Your task to perform on an android device: Play the last video I watched on Youtube Image 0: 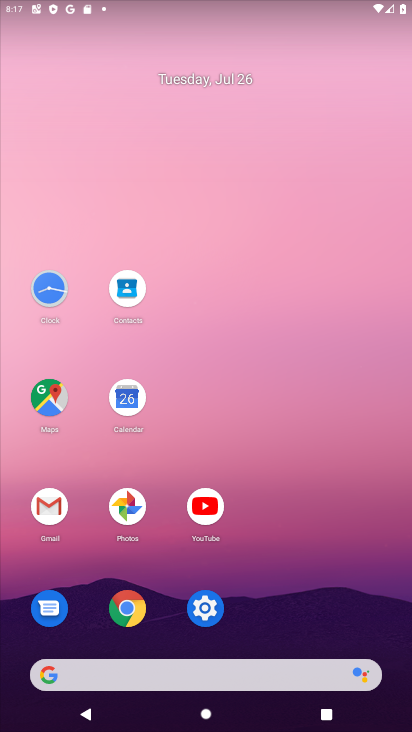
Step 0: click (206, 506)
Your task to perform on an android device: Play the last video I watched on Youtube Image 1: 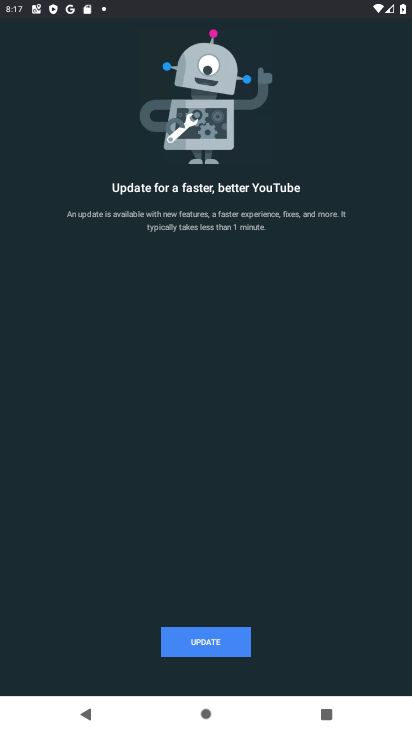
Step 1: click (198, 644)
Your task to perform on an android device: Play the last video I watched on Youtube Image 2: 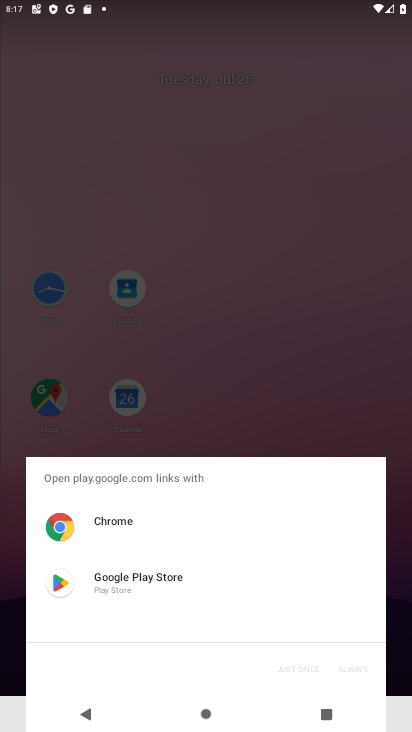
Step 2: click (112, 578)
Your task to perform on an android device: Play the last video I watched on Youtube Image 3: 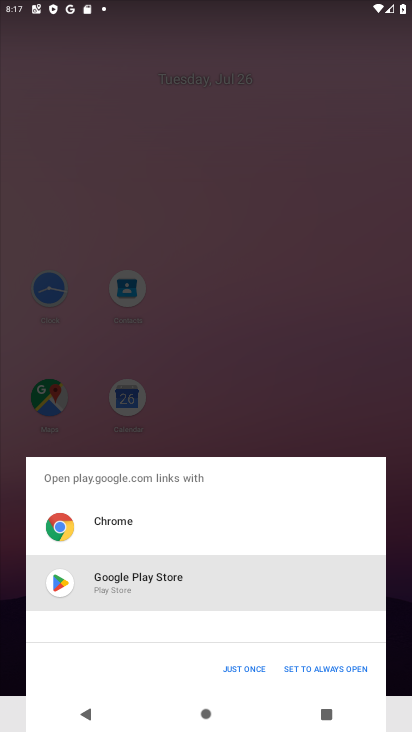
Step 3: click (245, 669)
Your task to perform on an android device: Play the last video I watched on Youtube Image 4: 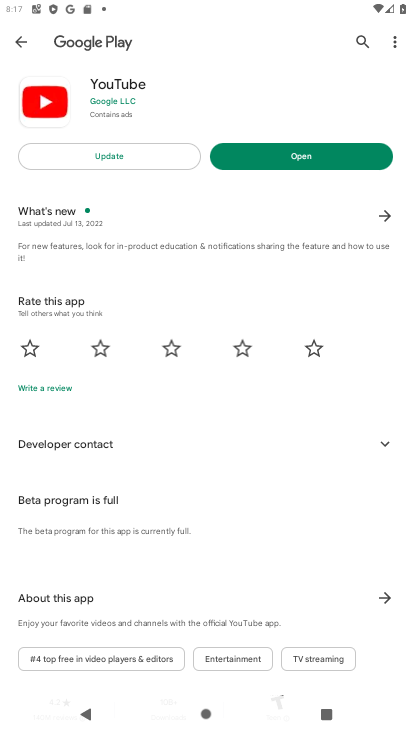
Step 4: click (111, 154)
Your task to perform on an android device: Play the last video I watched on Youtube Image 5: 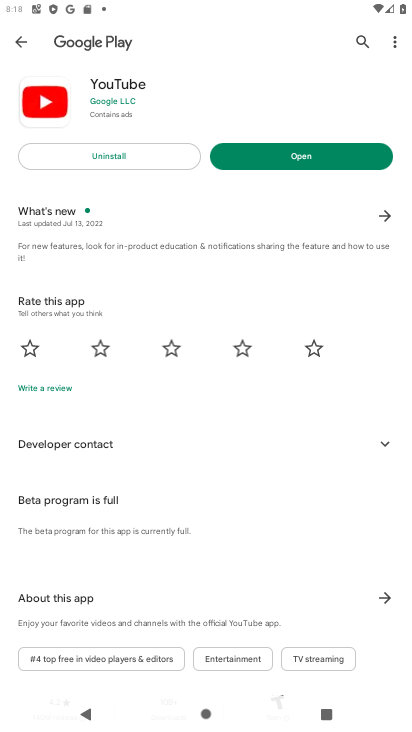
Step 5: click (291, 155)
Your task to perform on an android device: Play the last video I watched on Youtube Image 6: 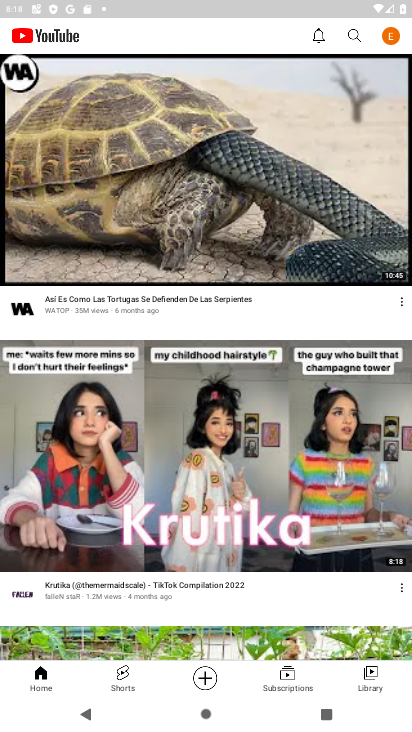
Step 6: click (367, 682)
Your task to perform on an android device: Play the last video I watched on Youtube Image 7: 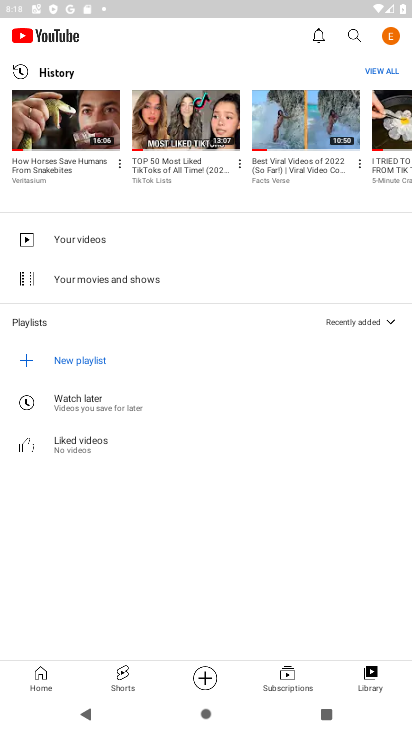
Step 7: click (63, 120)
Your task to perform on an android device: Play the last video I watched on Youtube Image 8: 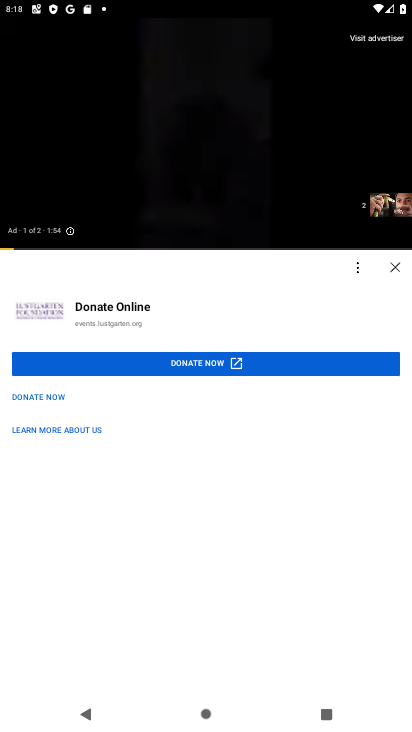
Step 8: task complete